Your task to perform on an android device: Open Wikipedia Image 0: 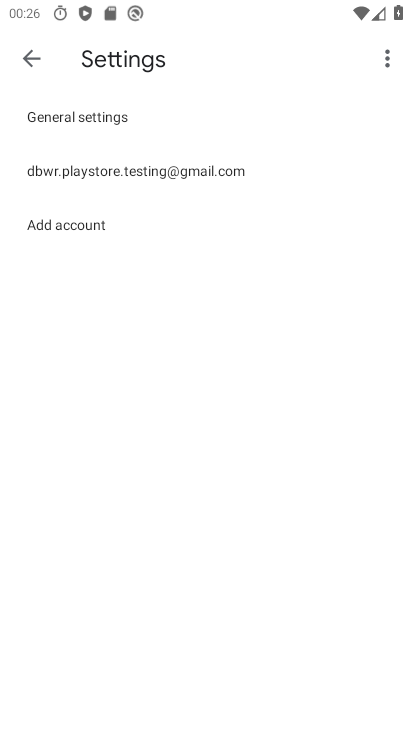
Step 0: press home button
Your task to perform on an android device: Open Wikipedia Image 1: 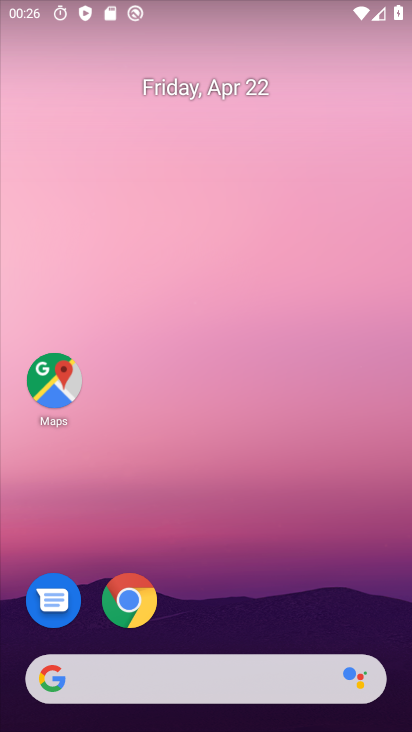
Step 1: click (134, 604)
Your task to perform on an android device: Open Wikipedia Image 2: 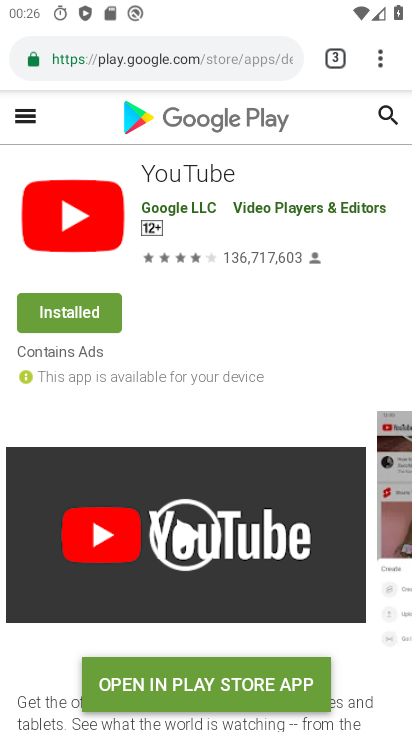
Step 2: drag from (213, 39) to (212, 113)
Your task to perform on an android device: Open Wikipedia Image 3: 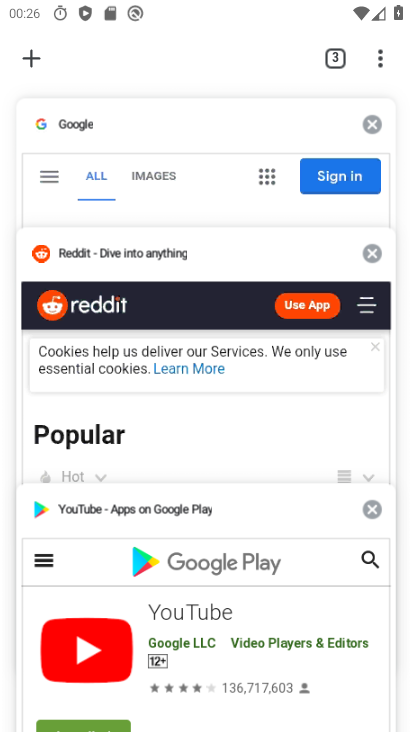
Step 3: click (30, 49)
Your task to perform on an android device: Open Wikipedia Image 4: 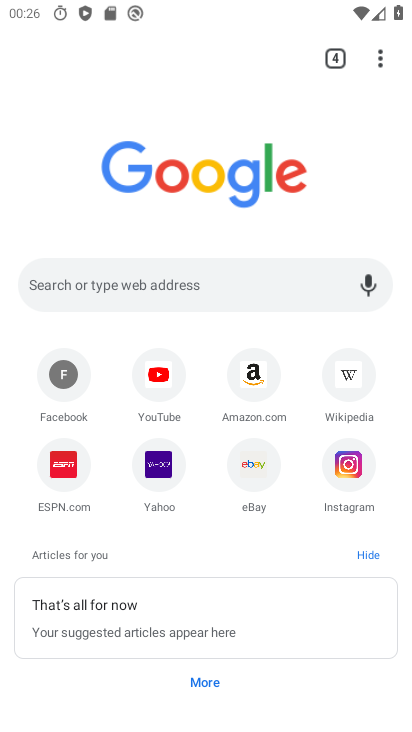
Step 4: click (358, 370)
Your task to perform on an android device: Open Wikipedia Image 5: 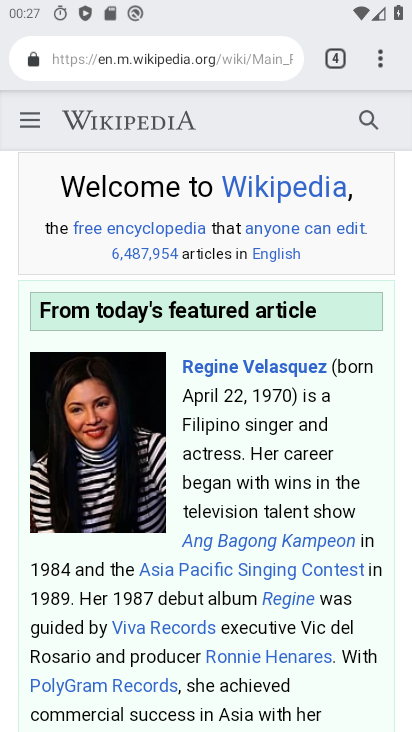
Step 5: task complete